Your task to perform on an android device: toggle notification dots Image 0: 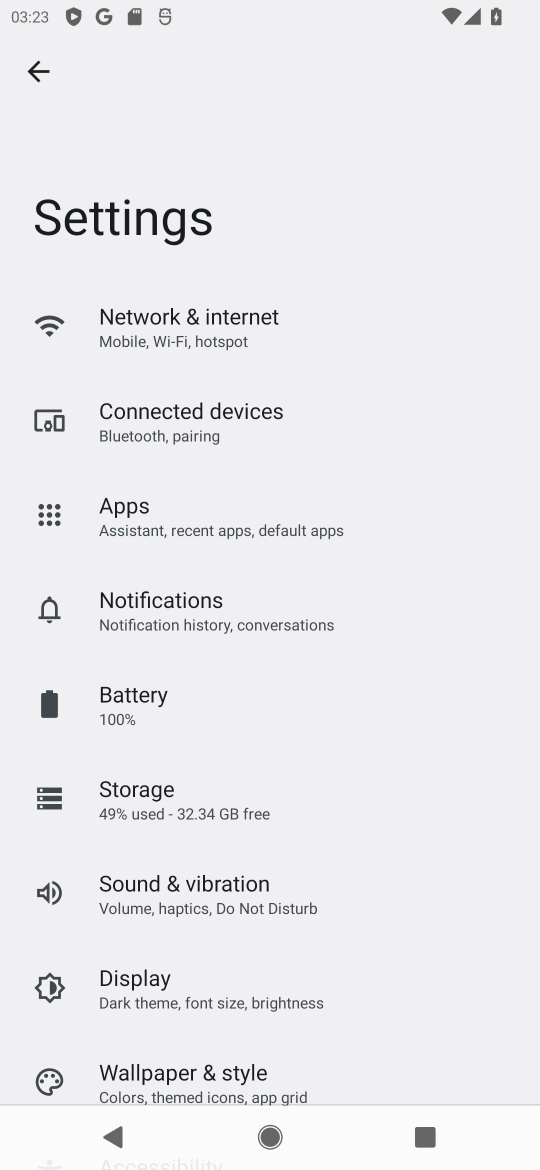
Step 0: press home button
Your task to perform on an android device: toggle notification dots Image 1: 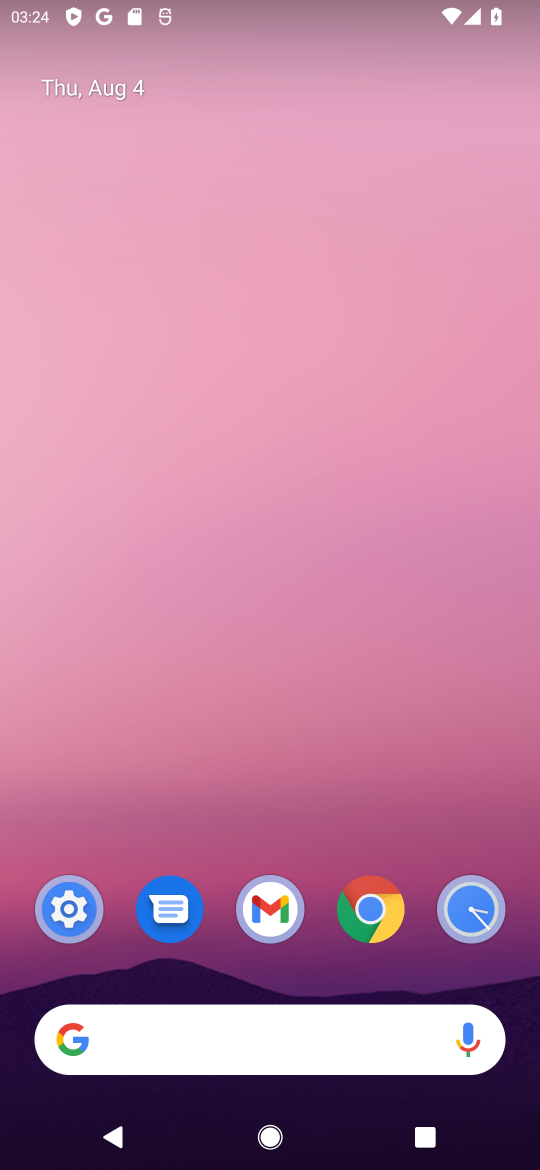
Step 1: click (63, 911)
Your task to perform on an android device: toggle notification dots Image 2: 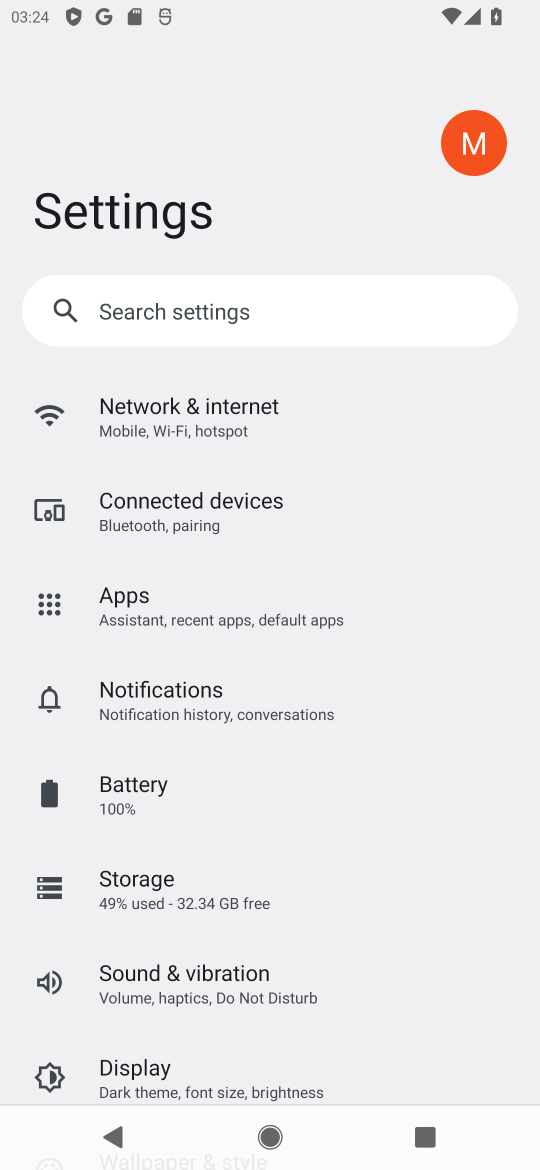
Step 2: click (191, 709)
Your task to perform on an android device: toggle notification dots Image 3: 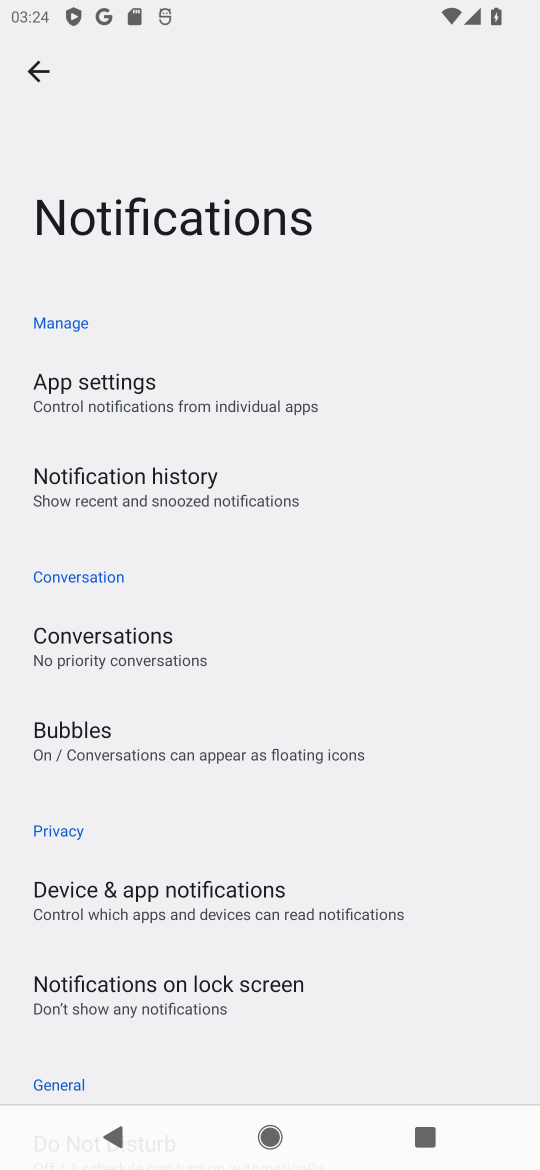
Step 3: drag from (261, 850) to (408, 330)
Your task to perform on an android device: toggle notification dots Image 4: 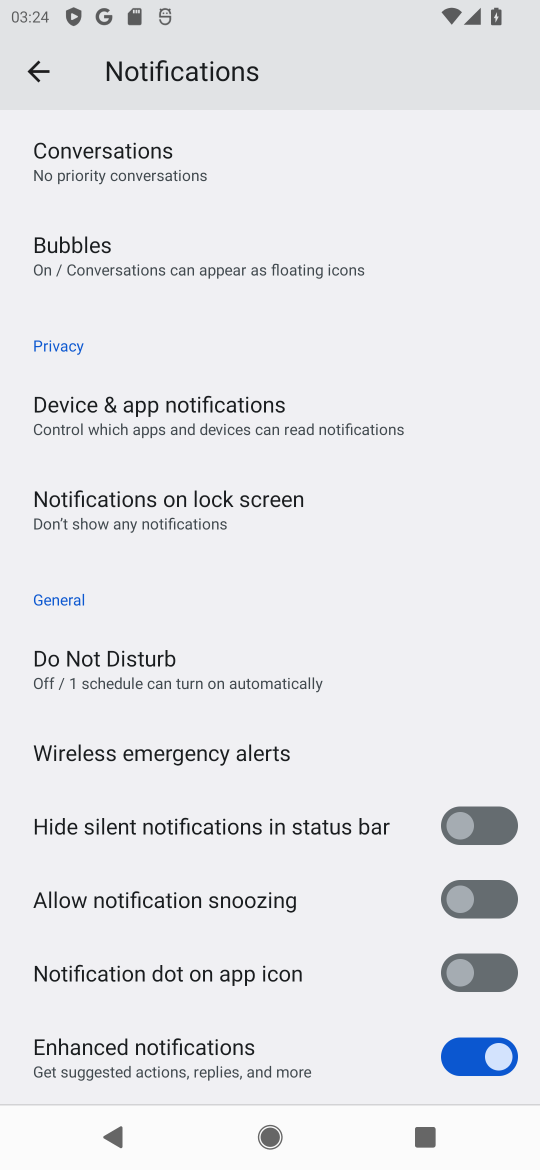
Step 4: click (493, 971)
Your task to perform on an android device: toggle notification dots Image 5: 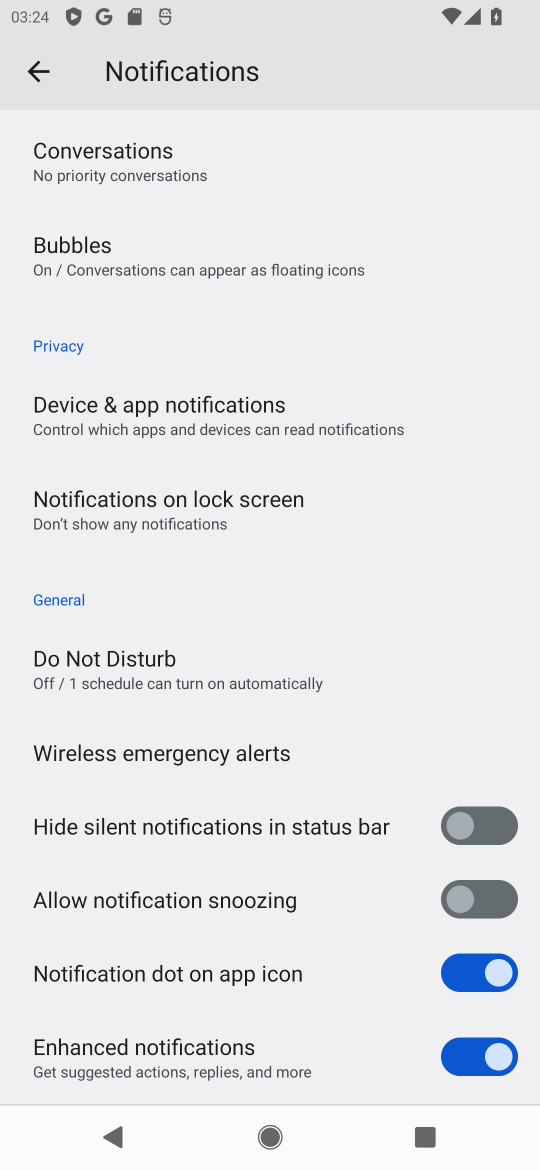
Step 5: task complete